Your task to perform on an android device: change the clock display to digital Image 0: 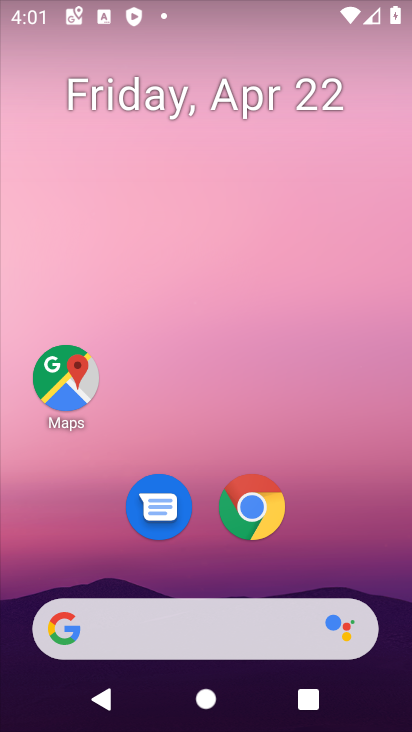
Step 0: drag from (358, 527) to (348, 62)
Your task to perform on an android device: change the clock display to digital Image 1: 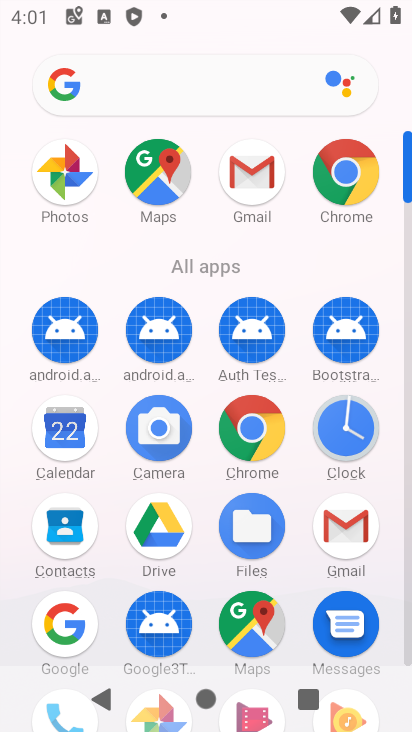
Step 1: click (339, 428)
Your task to perform on an android device: change the clock display to digital Image 2: 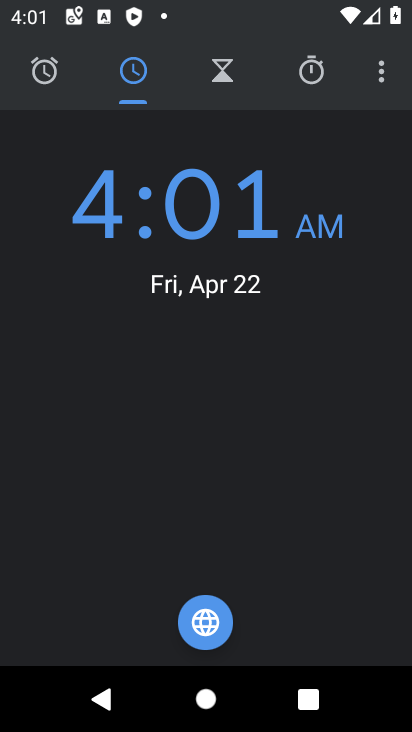
Step 2: task complete